Your task to perform on an android device: change notifications settings Image 0: 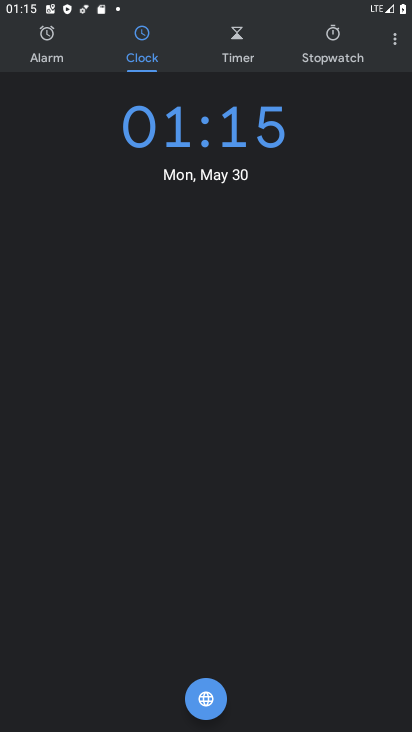
Step 0: press home button
Your task to perform on an android device: change notifications settings Image 1: 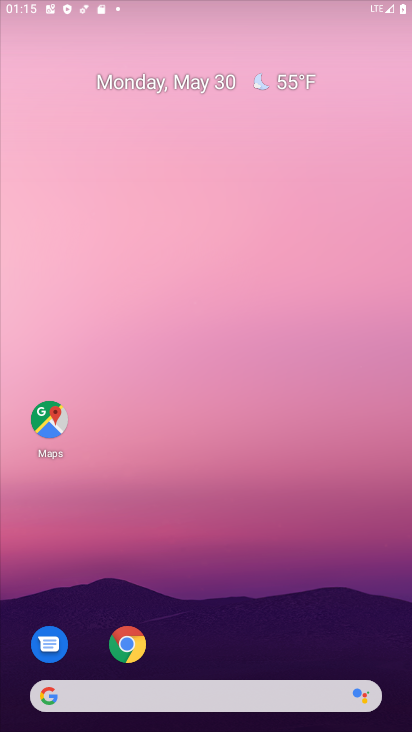
Step 1: drag from (327, 565) to (285, 160)
Your task to perform on an android device: change notifications settings Image 2: 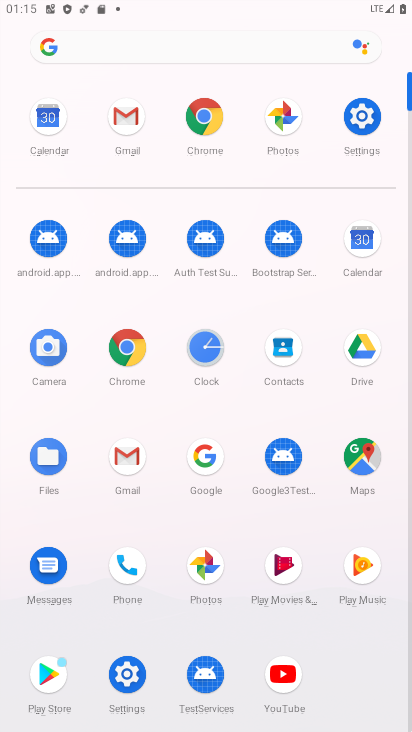
Step 2: click (122, 665)
Your task to perform on an android device: change notifications settings Image 3: 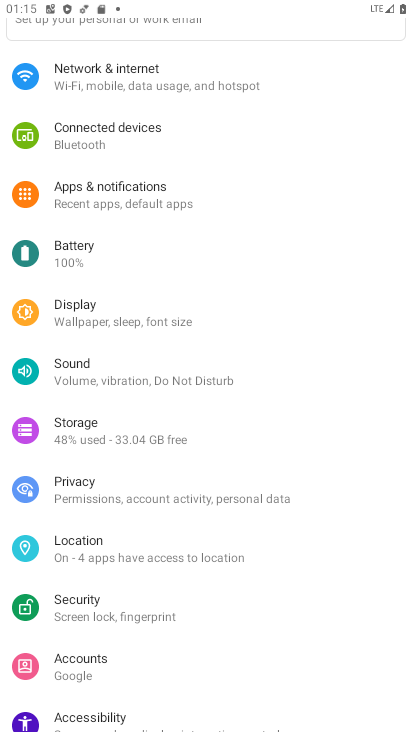
Step 3: click (147, 193)
Your task to perform on an android device: change notifications settings Image 4: 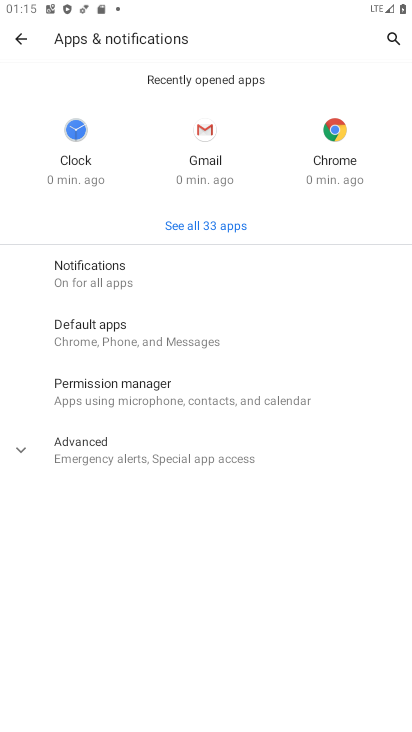
Step 4: click (106, 283)
Your task to perform on an android device: change notifications settings Image 5: 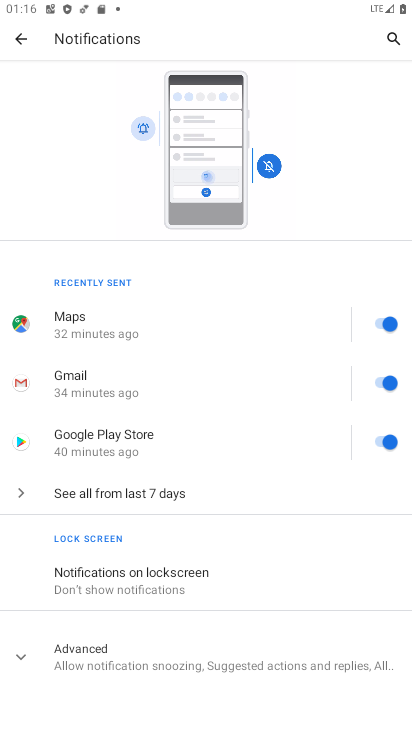
Step 5: task complete